Your task to perform on an android device: toggle wifi Image 0: 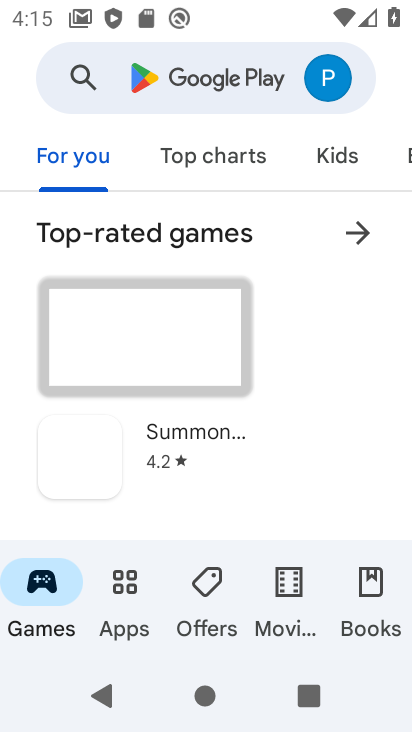
Step 0: press home button
Your task to perform on an android device: toggle wifi Image 1: 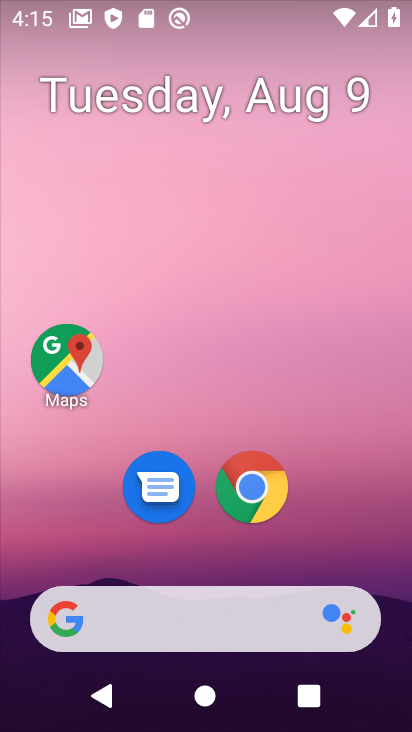
Step 1: drag from (199, 413) to (199, 17)
Your task to perform on an android device: toggle wifi Image 2: 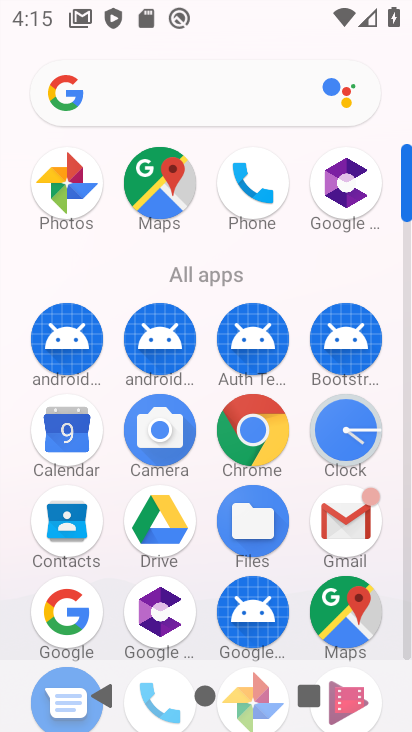
Step 2: drag from (197, 588) to (189, 159)
Your task to perform on an android device: toggle wifi Image 3: 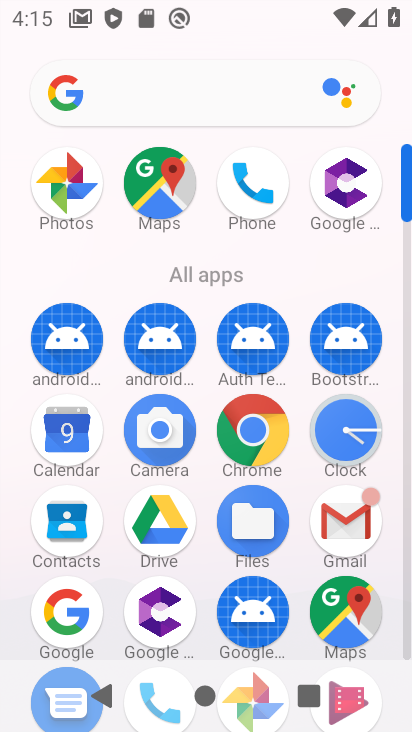
Step 3: drag from (192, 599) to (196, 213)
Your task to perform on an android device: toggle wifi Image 4: 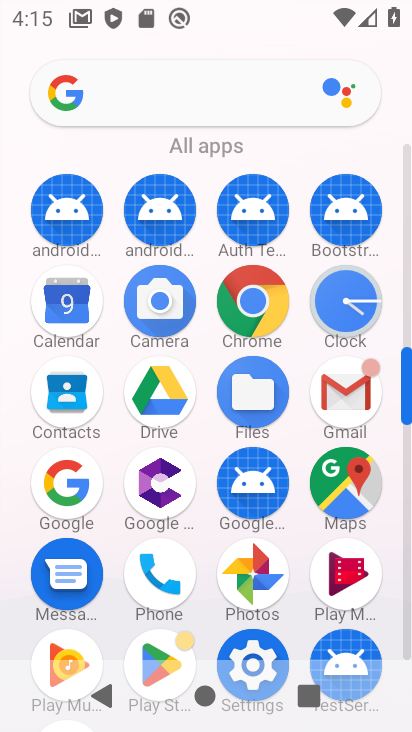
Step 4: click (249, 645)
Your task to perform on an android device: toggle wifi Image 5: 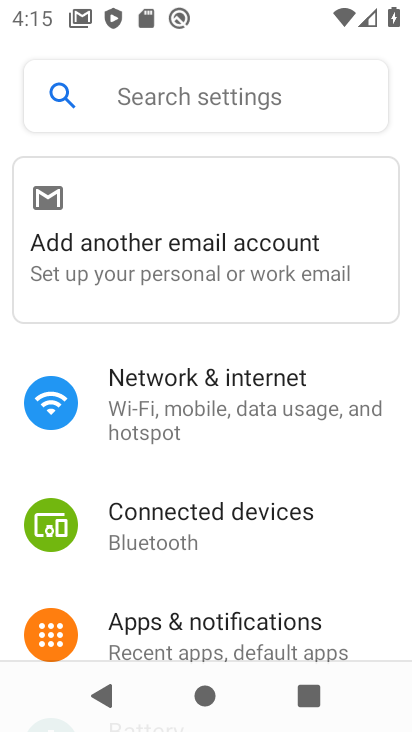
Step 5: drag from (276, 503) to (270, 205)
Your task to perform on an android device: toggle wifi Image 6: 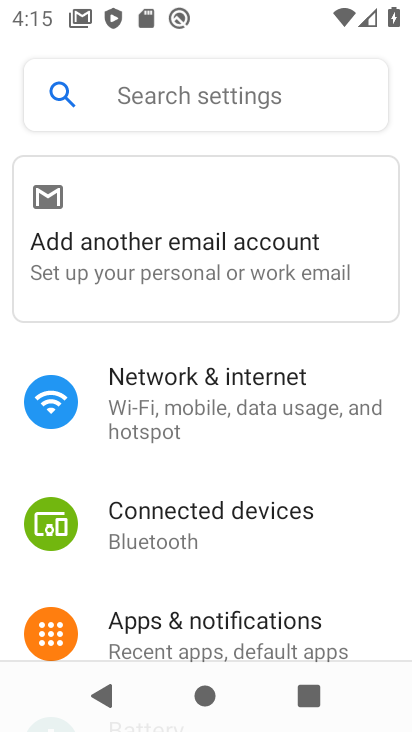
Step 6: click (160, 417)
Your task to perform on an android device: toggle wifi Image 7: 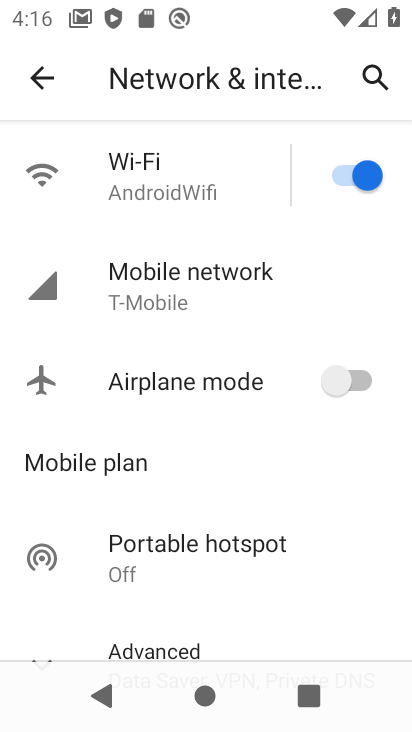
Step 7: click (341, 182)
Your task to perform on an android device: toggle wifi Image 8: 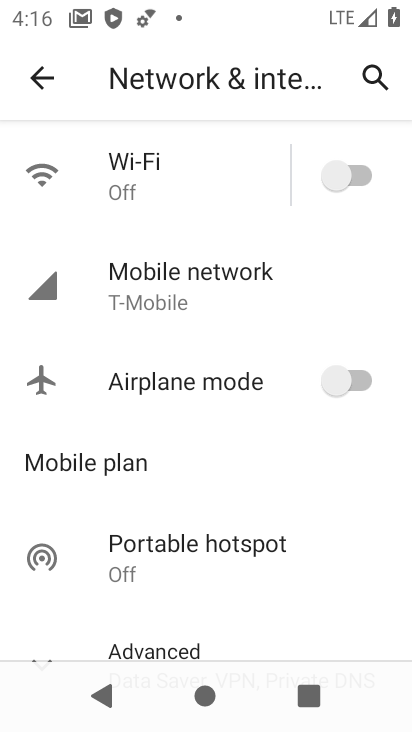
Step 8: task complete